Your task to perform on an android device: toggle airplane mode Image 0: 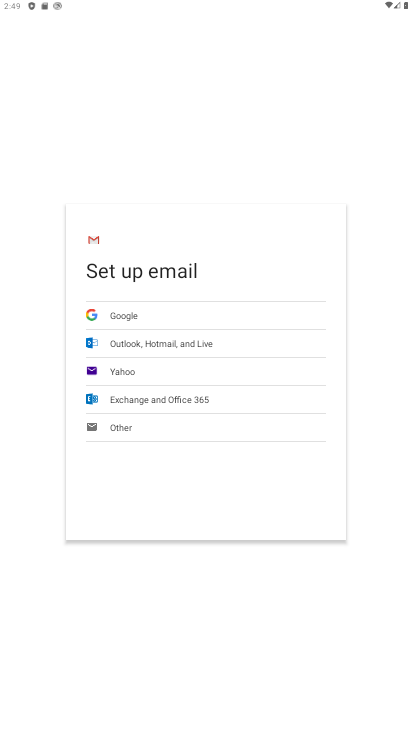
Step 0: press home button
Your task to perform on an android device: toggle airplane mode Image 1: 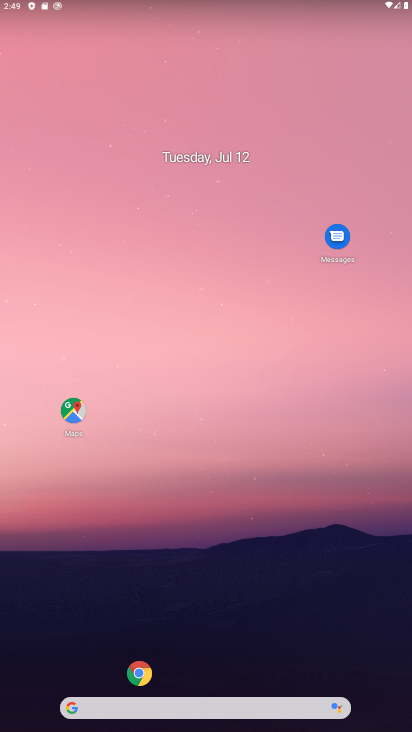
Step 1: drag from (122, 470) to (302, 2)
Your task to perform on an android device: toggle airplane mode Image 2: 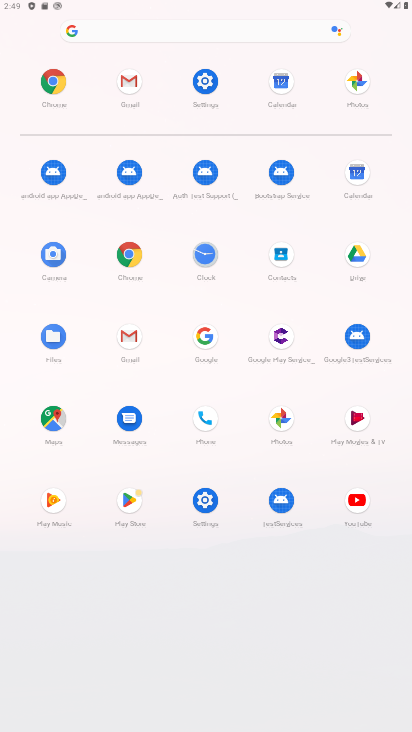
Step 2: click (215, 502)
Your task to perform on an android device: toggle airplane mode Image 3: 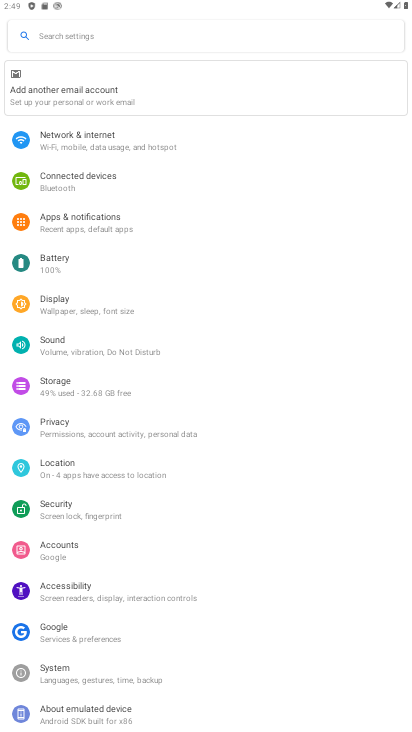
Step 3: click (86, 137)
Your task to perform on an android device: toggle airplane mode Image 4: 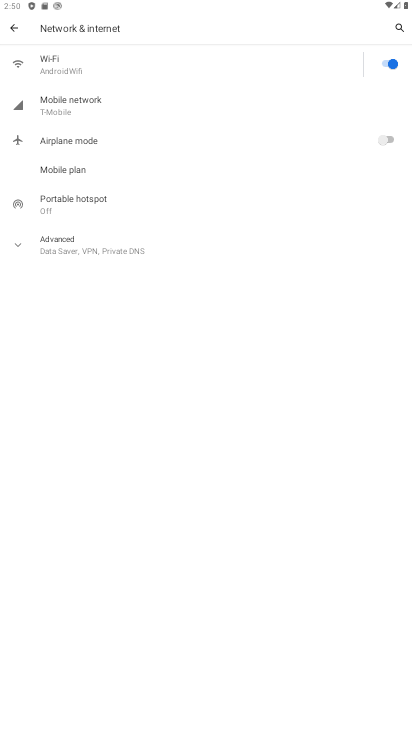
Step 4: click (91, 137)
Your task to perform on an android device: toggle airplane mode Image 5: 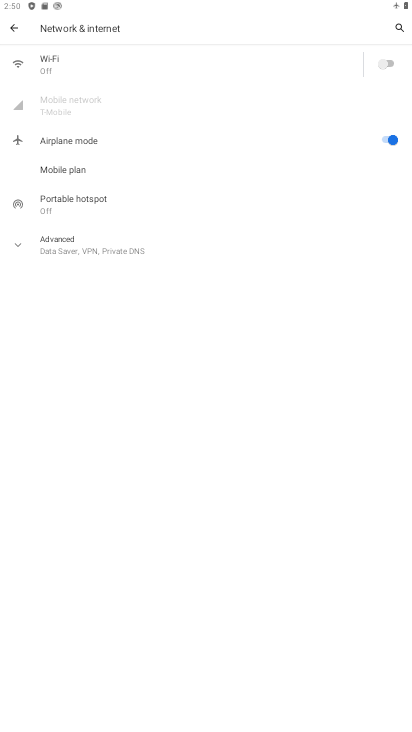
Step 5: task complete